Your task to perform on an android device: Go to CNN.com Image 0: 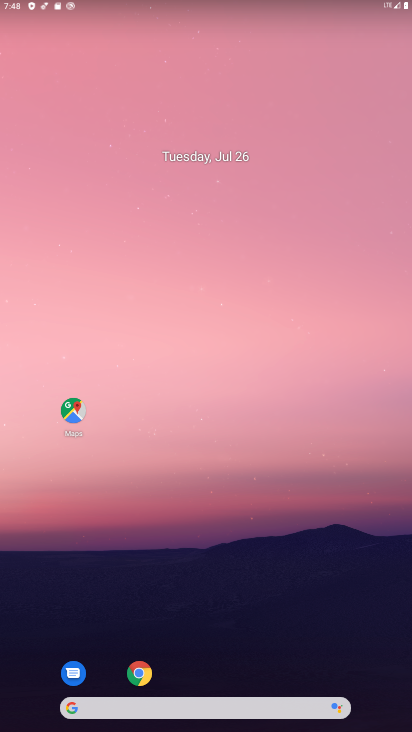
Step 0: drag from (336, 660) to (129, 94)
Your task to perform on an android device: Go to CNN.com Image 1: 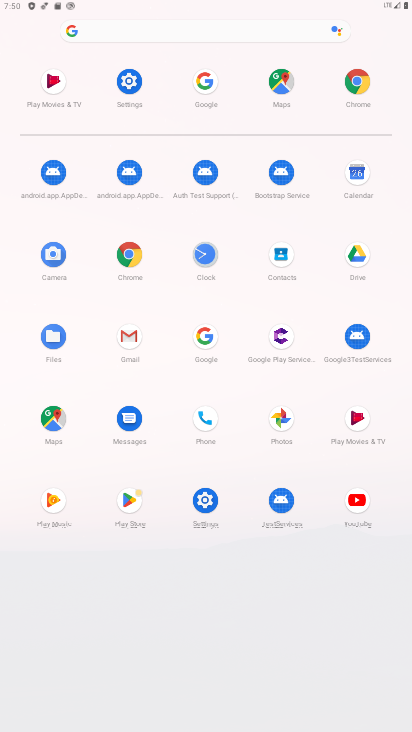
Step 1: click (216, 341)
Your task to perform on an android device: Go to CNN.com Image 2: 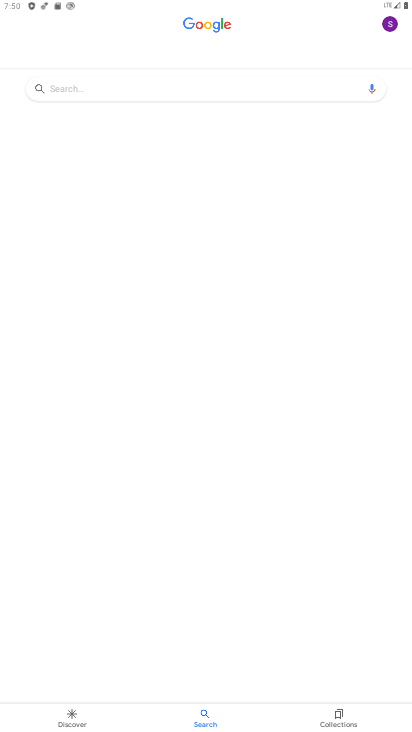
Step 2: click (151, 86)
Your task to perform on an android device: Go to CNN.com Image 3: 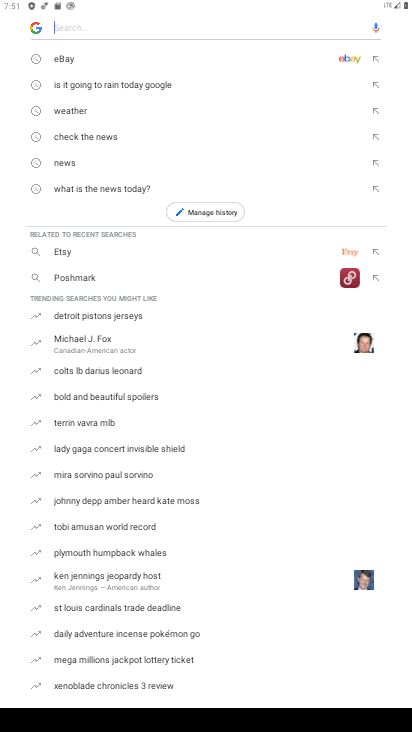
Step 3: type "CNN.com"
Your task to perform on an android device: Go to CNN.com Image 4: 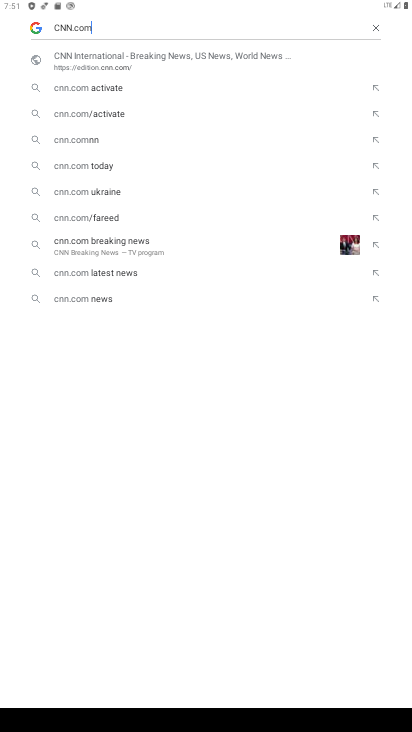
Step 4: click (173, 73)
Your task to perform on an android device: Go to CNN.com Image 5: 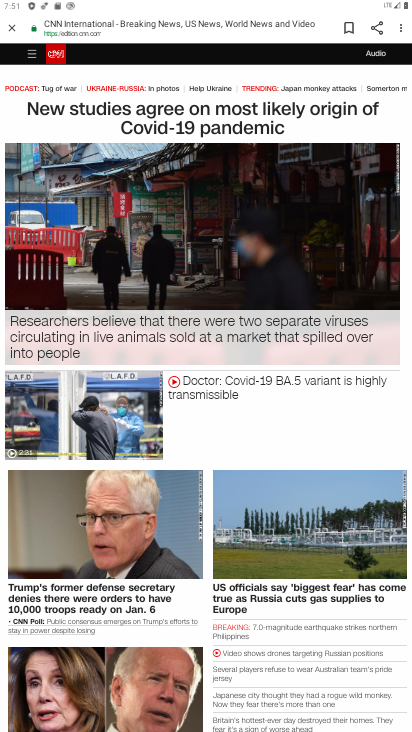
Step 5: task complete